Your task to perform on an android device: create a new album in the google photos Image 0: 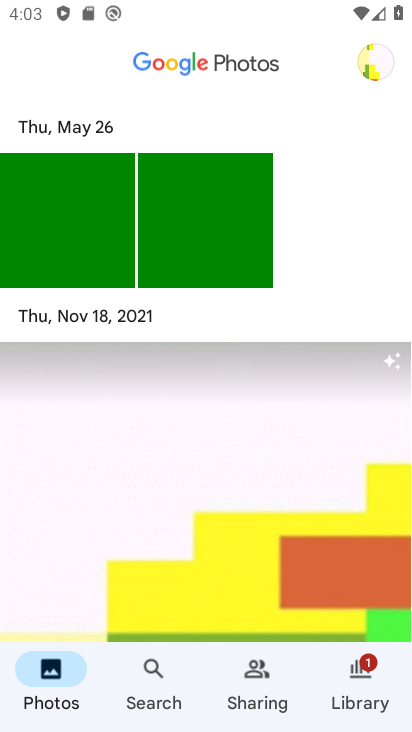
Step 0: click (344, 679)
Your task to perform on an android device: create a new album in the google photos Image 1: 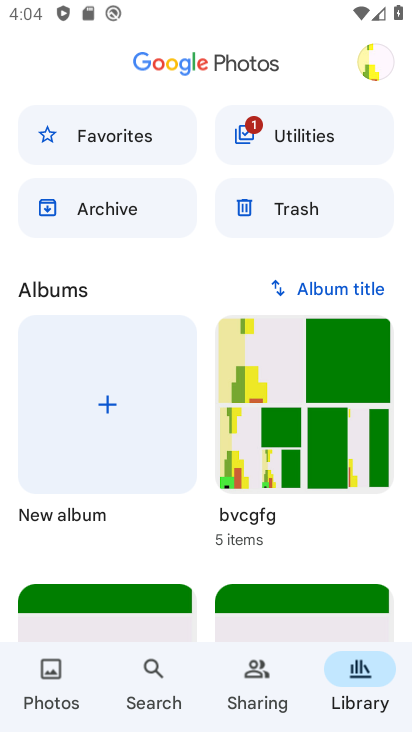
Step 1: click (111, 403)
Your task to perform on an android device: create a new album in the google photos Image 2: 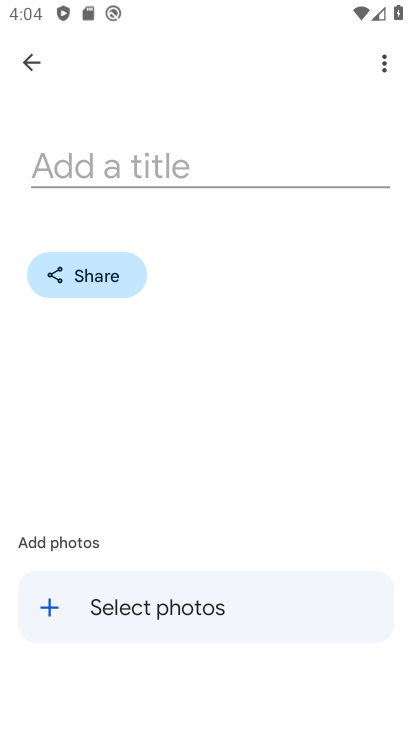
Step 2: click (163, 181)
Your task to perform on an android device: create a new album in the google photos Image 3: 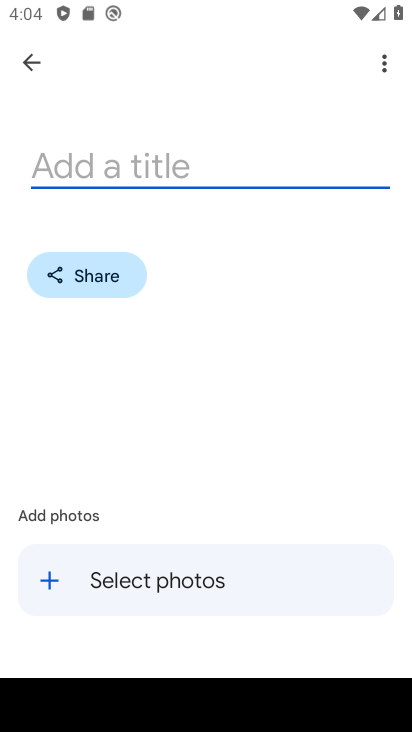
Step 3: type "bjhhbjhbhj"
Your task to perform on an android device: create a new album in the google photos Image 4: 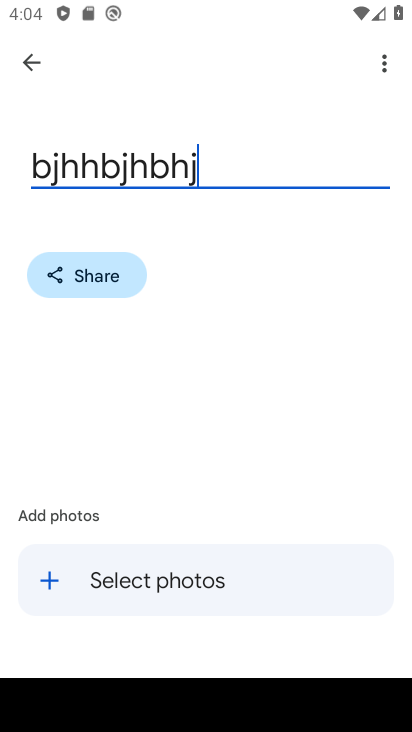
Step 4: click (249, 577)
Your task to perform on an android device: create a new album in the google photos Image 5: 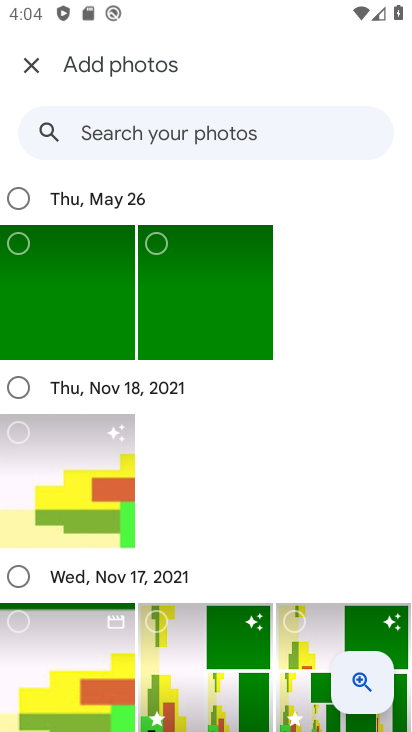
Step 5: click (243, 318)
Your task to perform on an android device: create a new album in the google photos Image 6: 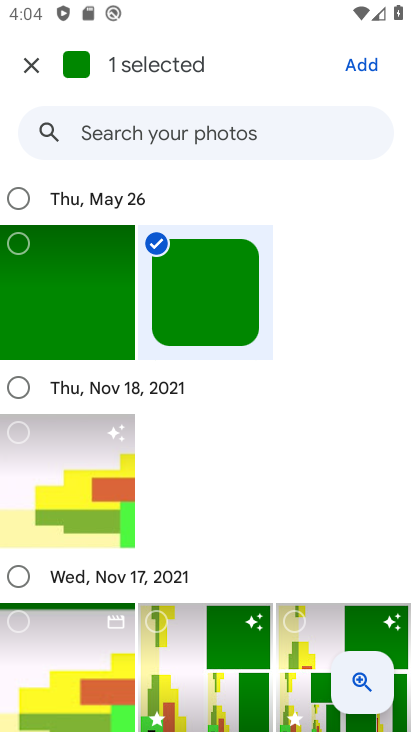
Step 6: click (360, 62)
Your task to perform on an android device: create a new album in the google photos Image 7: 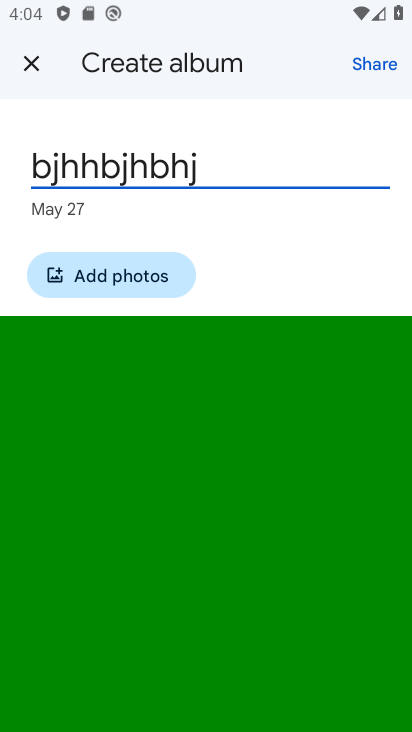
Step 7: task complete